Your task to perform on an android device: delete browsing data in the chrome app Image 0: 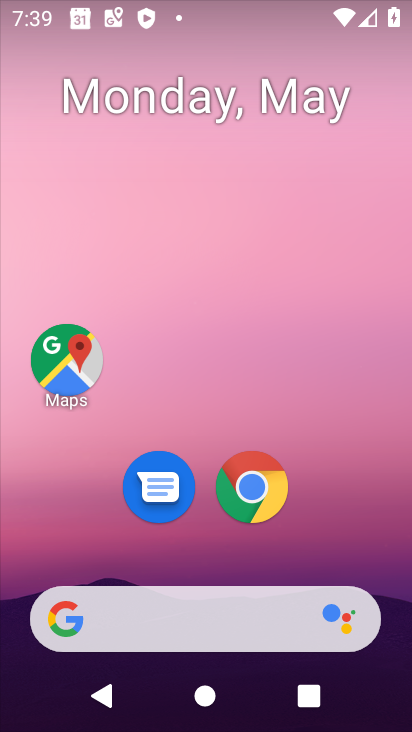
Step 0: drag from (381, 562) to (370, 275)
Your task to perform on an android device: delete browsing data in the chrome app Image 1: 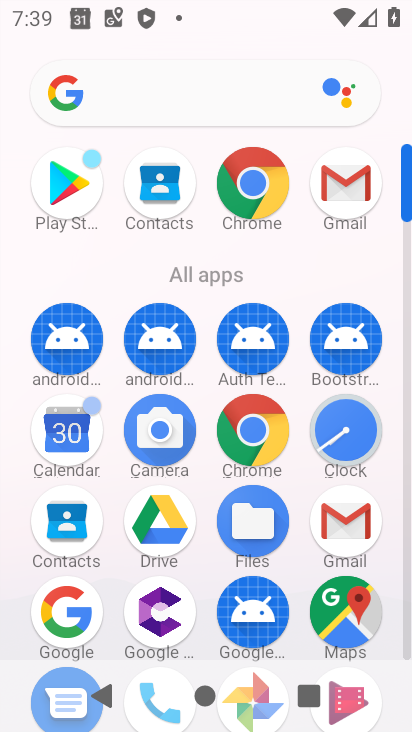
Step 1: click (261, 436)
Your task to perform on an android device: delete browsing data in the chrome app Image 2: 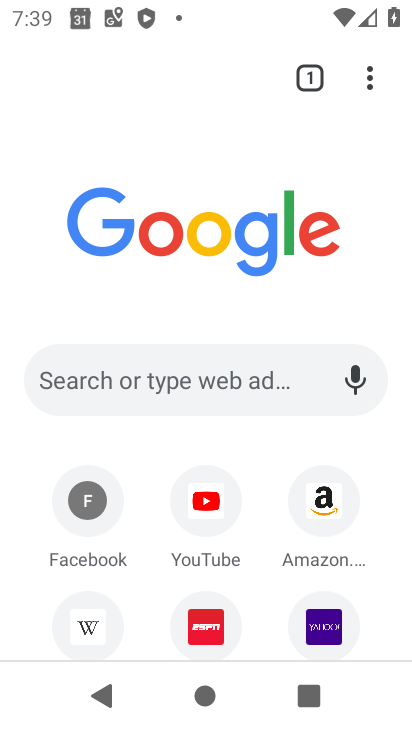
Step 2: click (368, 89)
Your task to perform on an android device: delete browsing data in the chrome app Image 3: 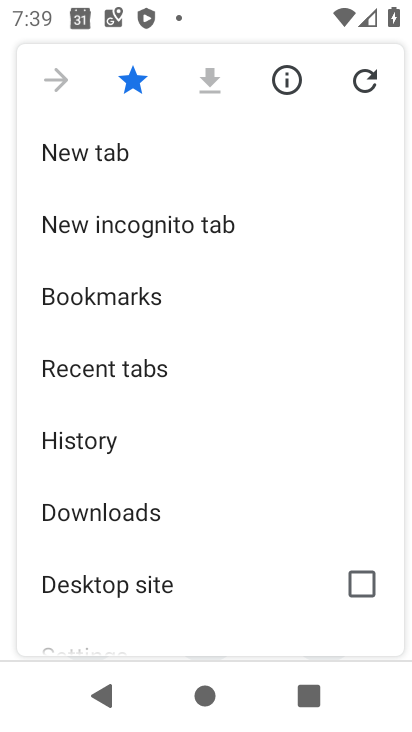
Step 3: drag from (257, 505) to (284, 341)
Your task to perform on an android device: delete browsing data in the chrome app Image 4: 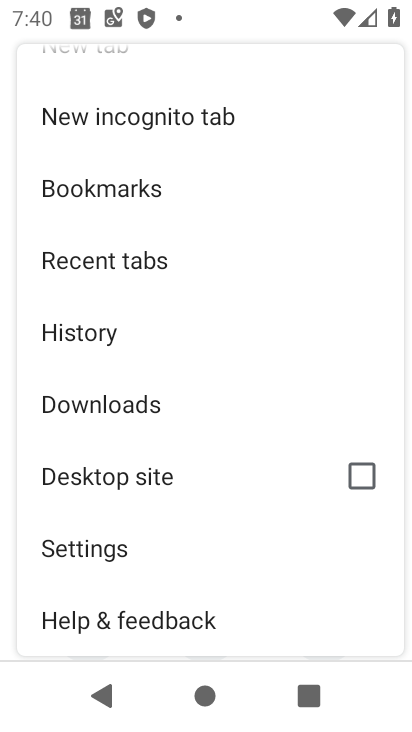
Step 4: click (135, 539)
Your task to perform on an android device: delete browsing data in the chrome app Image 5: 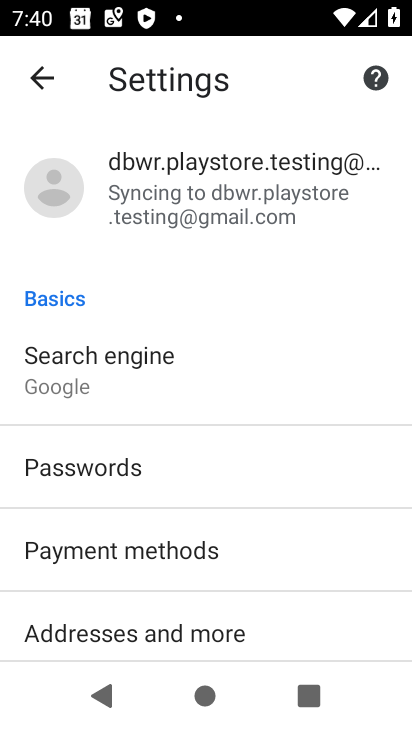
Step 5: drag from (310, 526) to (306, 432)
Your task to perform on an android device: delete browsing data in the chrome app Image 6: 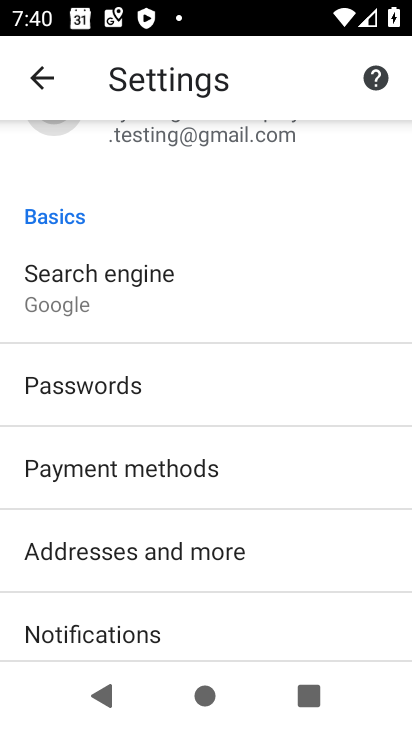
Step 6: drag from (302, 575) to (328, 433)
Your task to perform on an android device: delete browsing data in the chrome app Image 7: 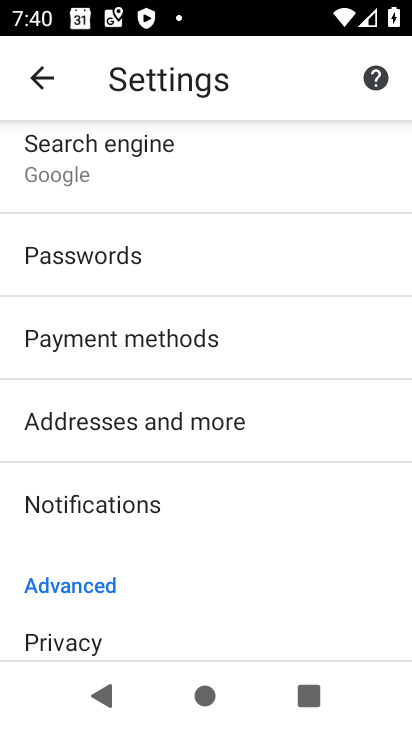
Step 7: drag from (330, 575) to (339, 441)
Your task to perform on an android device: delete browsing data in the chrome app Image 8: 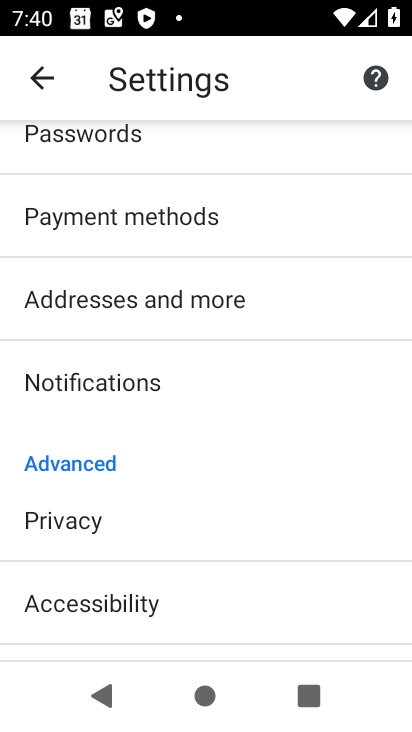
Step 8: drag from (337, 582) to (349, 483)
Your task to perform on an android device: delete browsing data in the chrome app Image 9: 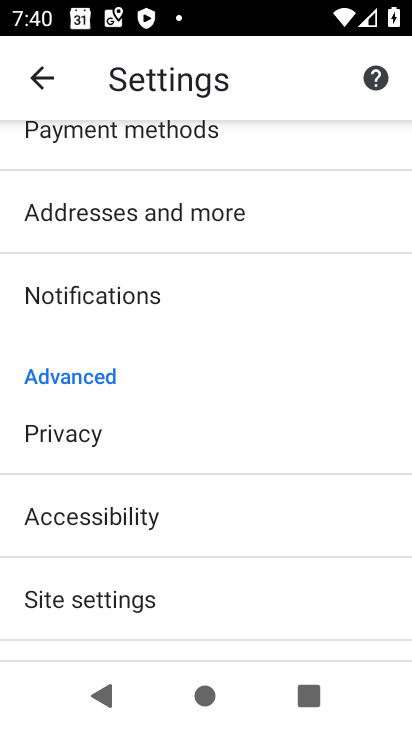
Step 9: drag from (349, 599) to (354, 465)
Your task to perform on an android device: delete browsing data in the chrome app Image 10: 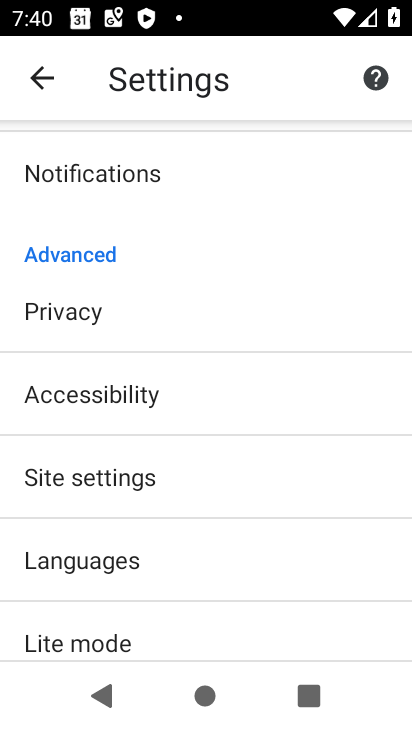
Step 10: drag from (353, 592) to (345, 478)
Your task to perform on an android device: delete browsing data in the chrome app Image 11: 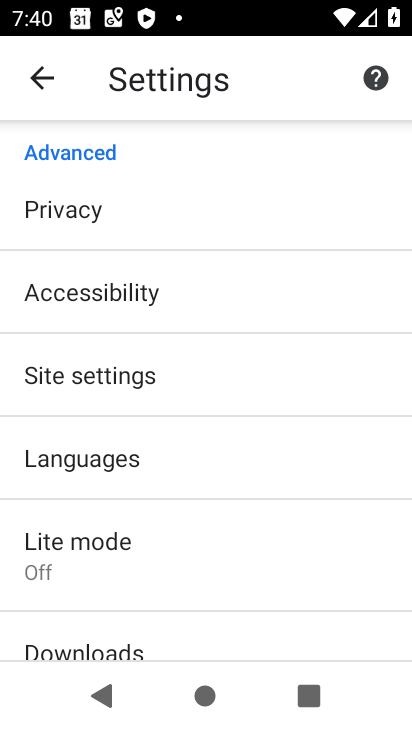
Step 11: click (251, 238)
Your task to perform on an android device: delete browsing data in the chrome app Image 12: 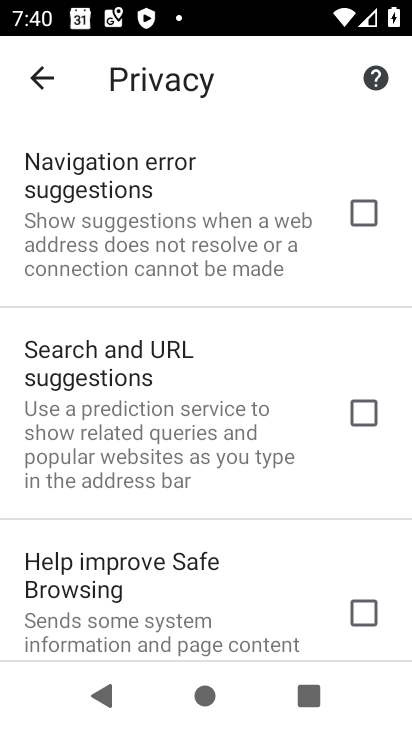
Step 12: drag from (289, 529) to (290, 393)
Your task to perform on an android device: delete browsing data in the chrome app Image 13: 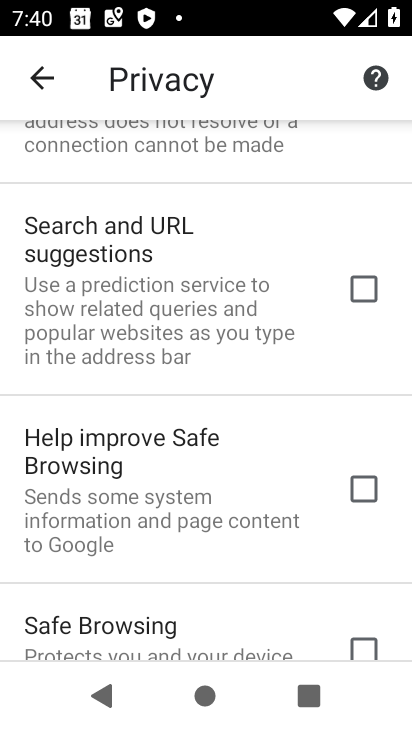
Step 13: drag from (283, 600) to (272, 337)
Your task to perform on an android device: delete browsing data in the chrome app Image 14: 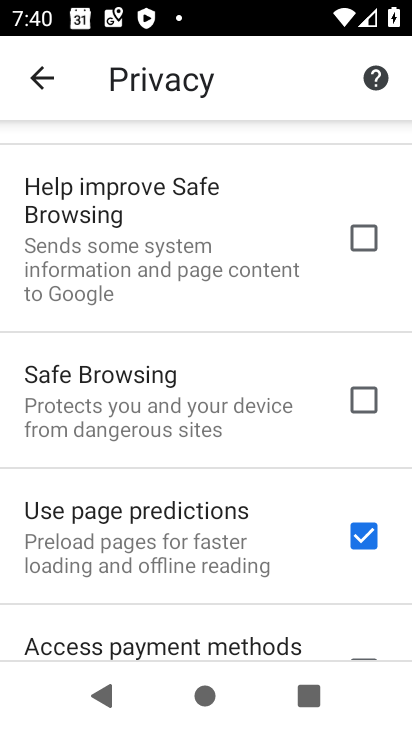
Step 14: drag from (274, 555) to (281, 365)
Your task to perform on an android device: delete browsing data in the chrome app Image 15: 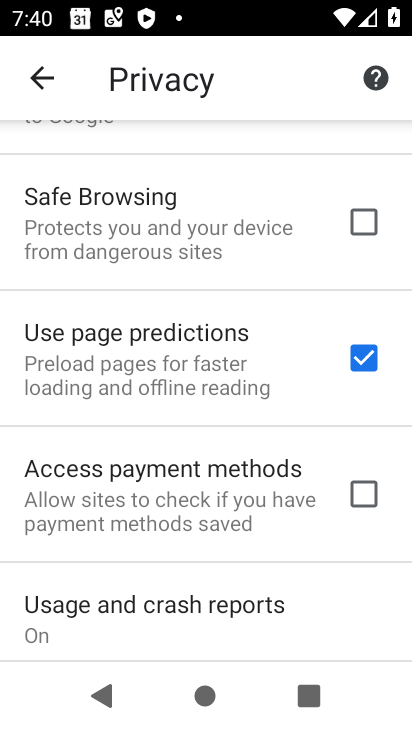
Step 15: drag from (298, 580) to (308, 412)
Your task to perform on an android device: delete browsing data in the chrome app Image 16: 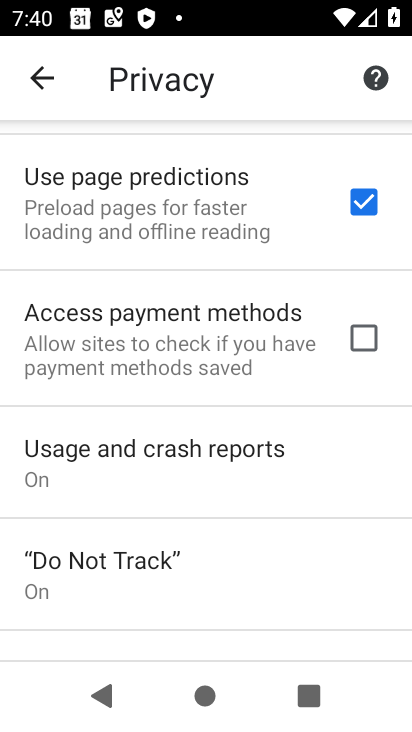
Step 16: drag from (281, 599) to (300, 391)
Your task to perform on an android device: delete browsing data in the chrome app Image 17: 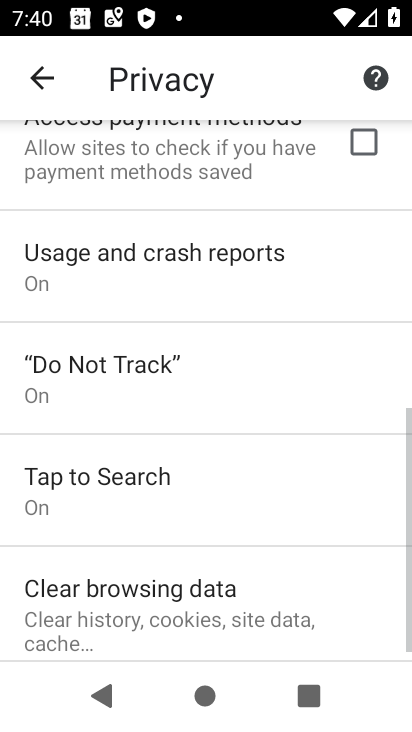
Step 17: click (286, 617)
Your task to perform on an android device: delete browsing data in the chrome app Image 18: 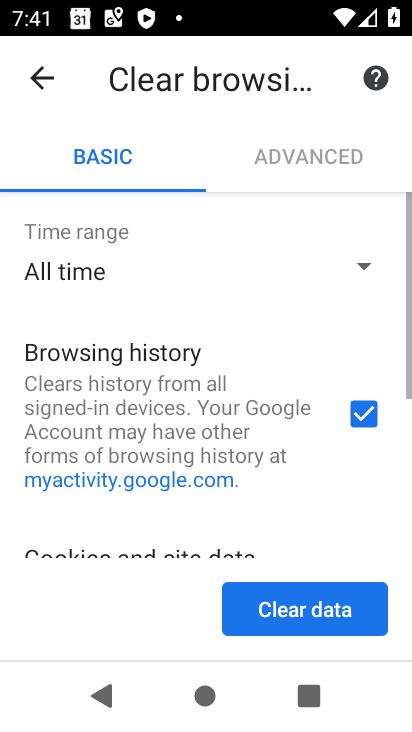
Step 18: click (286, 617)
Your task to perform on an android device: delete browsing data in the chrome app Image 19: 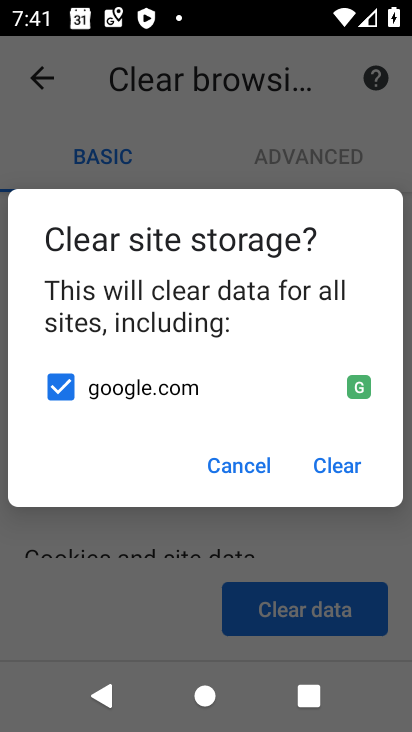
Step 19: click (332, 471)
Your task to perform on an android device: delete browsing data in the chrome app Image 20: 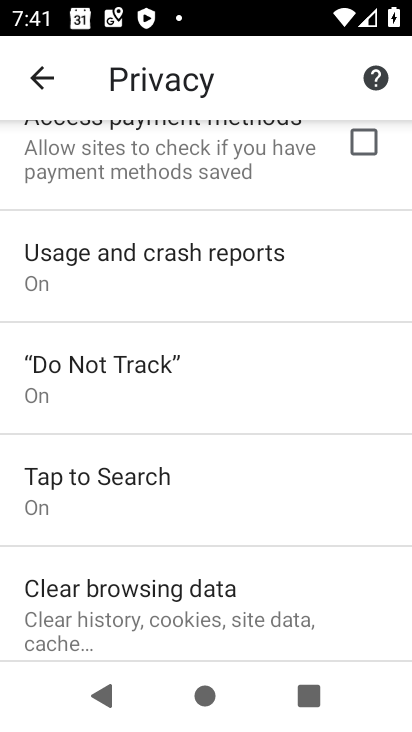
Step 20: task complete